Your task to perform on an android device: toggle notifications settings in the gmail app Image 0: 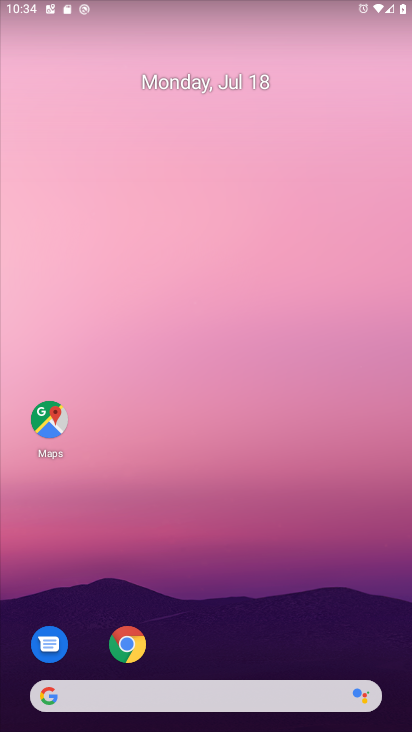
Step 0: drag from (246, 640) to (255, 29)
Your task to perform on an android device: toggle notifications settings in the gmail app Image 1: 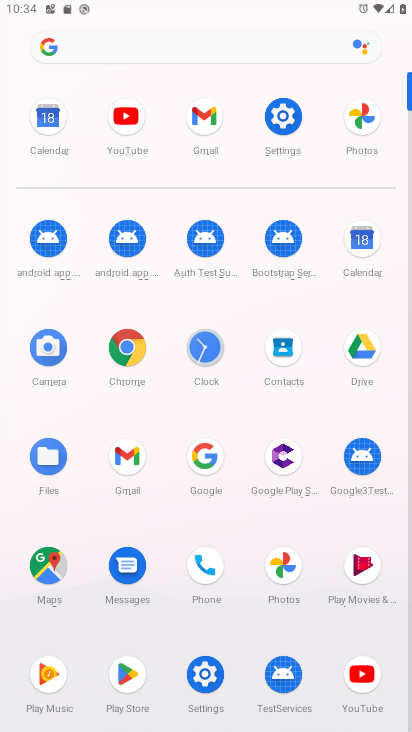
Step 1: click (191, 128)
Your task to perform on an android device: toggle notifications settings in the gmail app Image 2: 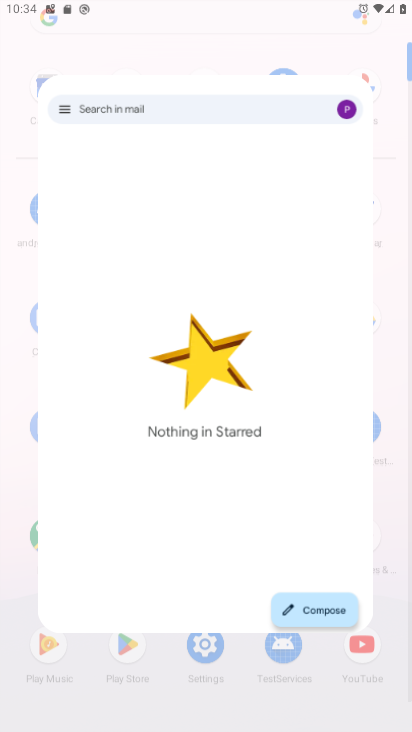
Step 2: task complete